Your task to perform on an android device: Open sound settings Image 0: 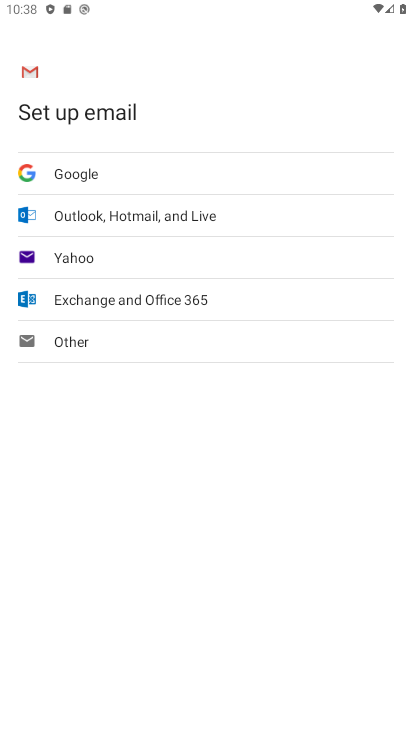
Step 0: press home button
Your task to perform on an android device: Open sound settings Image 1: 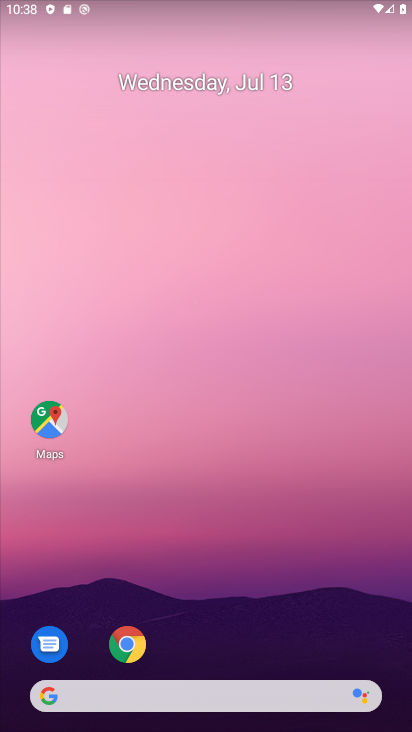
Step 1: drag from (275, 519) to (232, 256)
Your task to perform on an android device: Open sound settings Image 2: 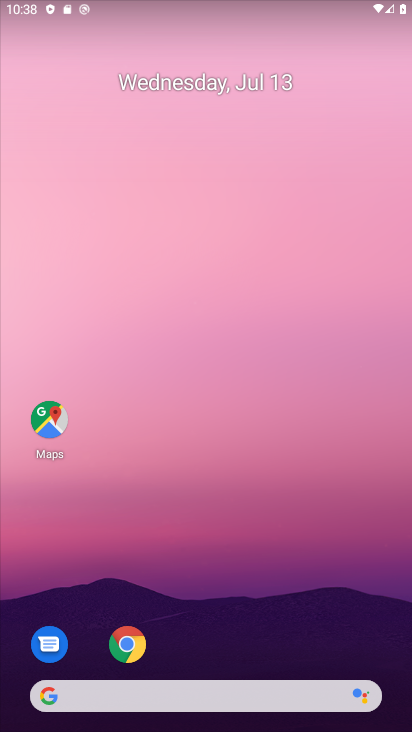
Step 2: click (305, 617)
Your task to perform on an android device: Open sound settings Image 3: 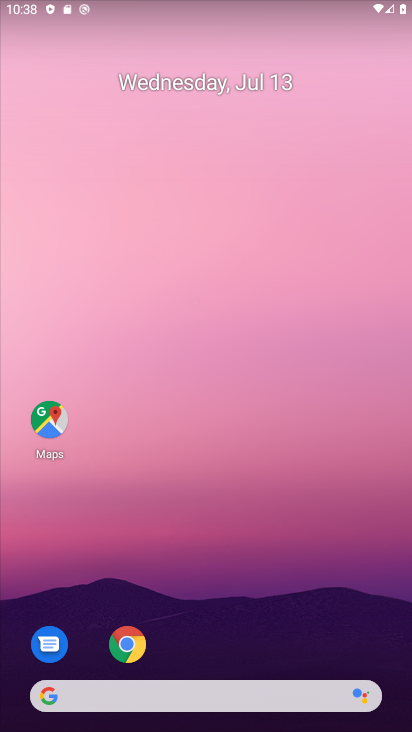
Step 3: drag from (288, 606) to (214, 197)
Your task to perform on an android device: Open sound settings Image 4: 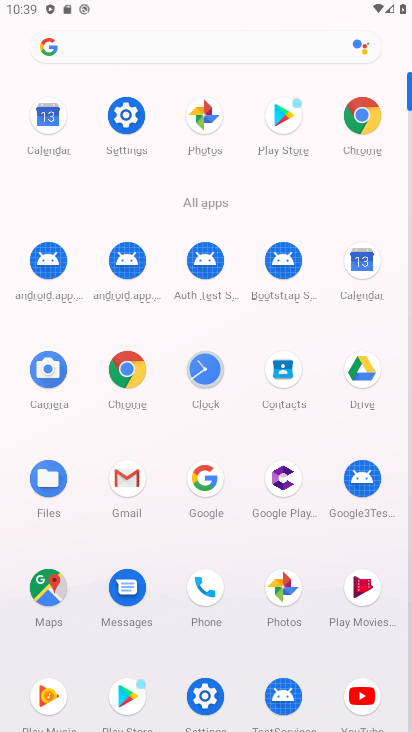
Step 4: click (119, 120)
Your task to perform on an android device: Open sound settings Image 5: 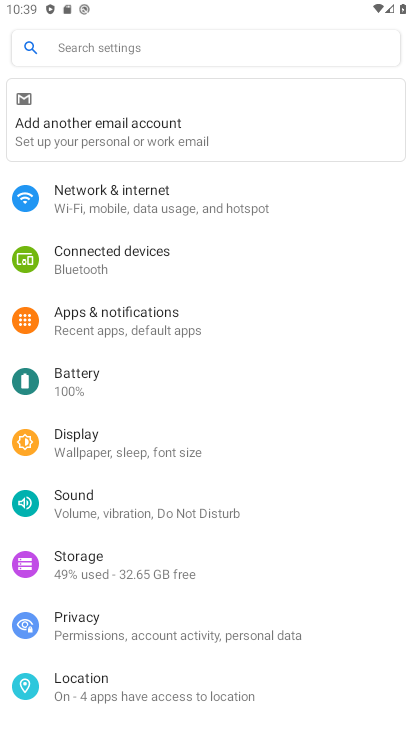
Step 5: click (77, 497)
Your task to perform on an android device: Open sound settings Image 6: 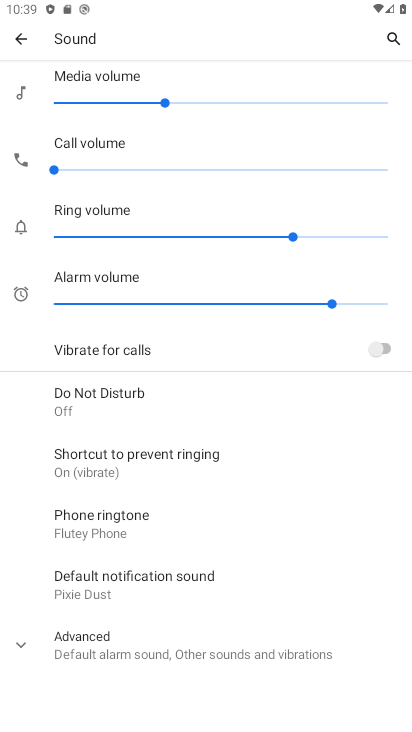
Step 6: task complete